Your task to perform on an android device: change the clock display to digital Image 0: 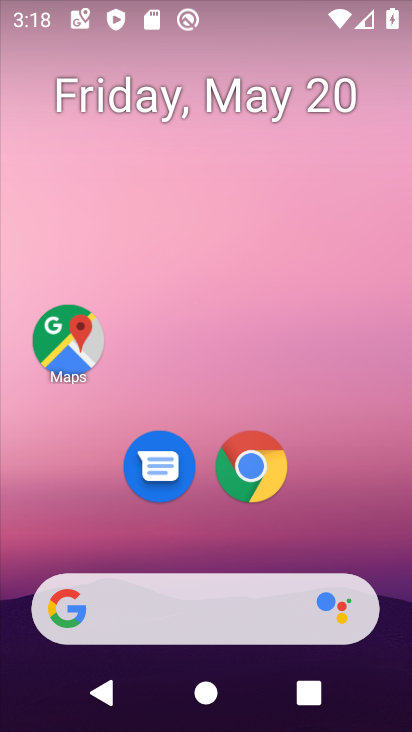
Step 0: drag from (200, 570) to (197, 112)
Your task to perform on an android device: change the clock display to digital Image 1: 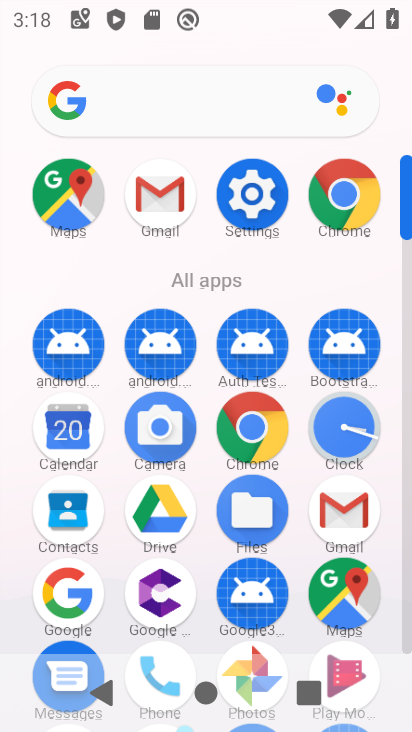
Step 1: click (342, 451)
Your task to perform on an android device: change the clock display to digital Image 2: 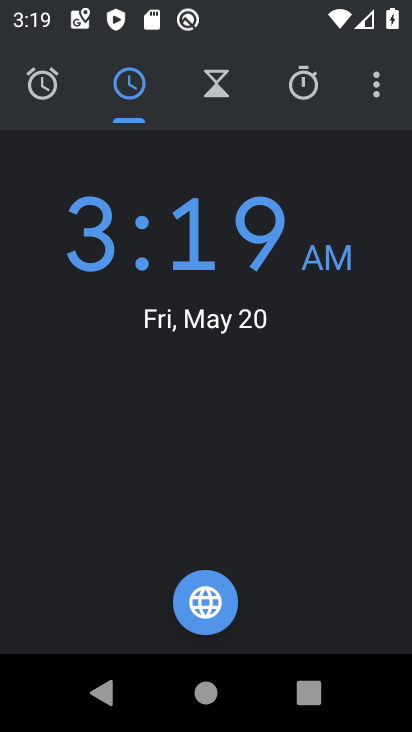
Step 2: click (372, 85)
Your task to perform on an android device: change the clock display to digital Image 3: 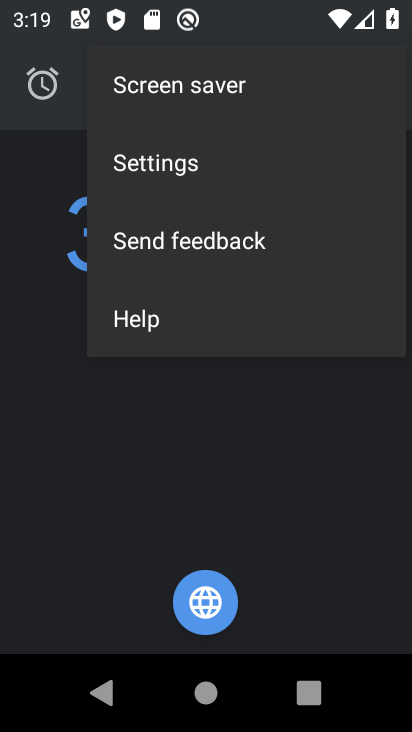
Step 3: click (169, 165)
Your task to perform on an android device: change the clock display to digital Image 4: 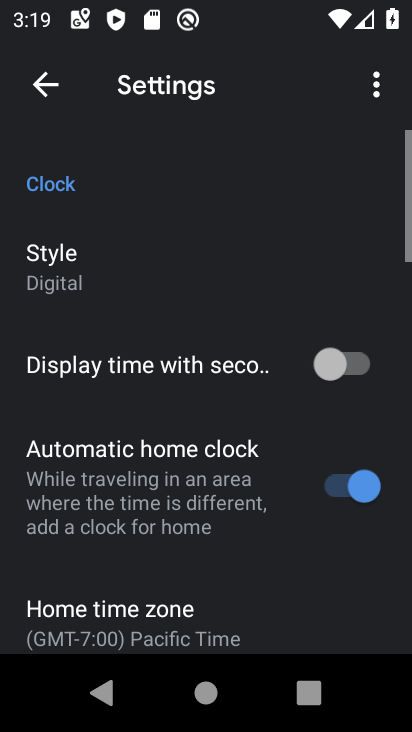
Step 4: click (41, 277)
Your task to perform on an android device: change the clock display to digital Image 5: 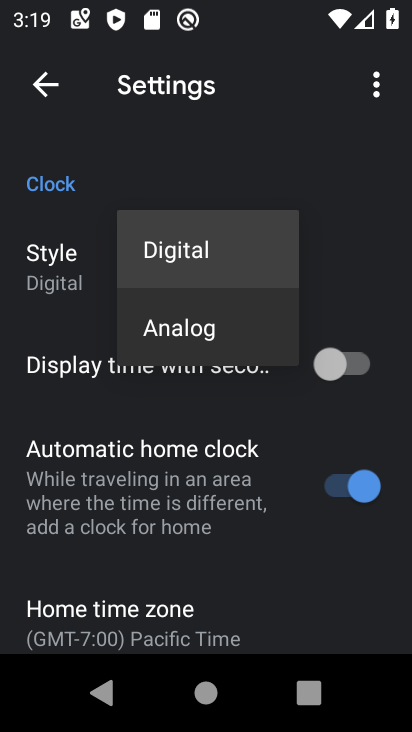
Step 5: task complete